Your task to perform on an android device: Add "jbl flip 4" to the cart on target.com Image 0: 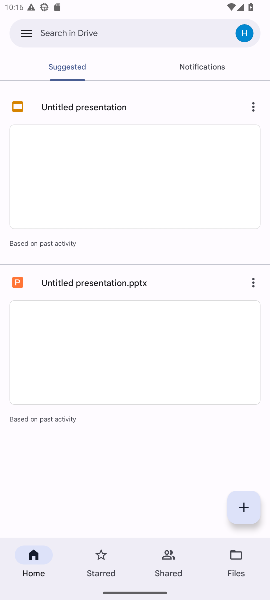
Step 0: press home button
Your task to perform on an android device: Add "jbl flip 4" to the cart on target.com Image 1: 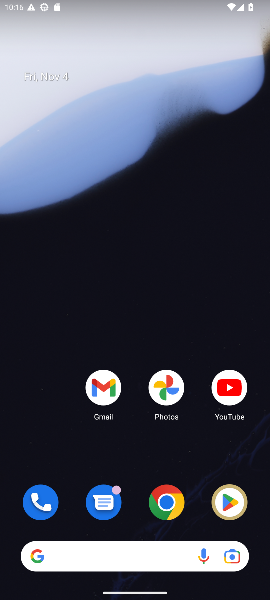
Step 1: drag from (131, 456) to (24, 43)
Your task to perform on an android device: Add "jbl flip 4" to the cart on target.com Image 2: 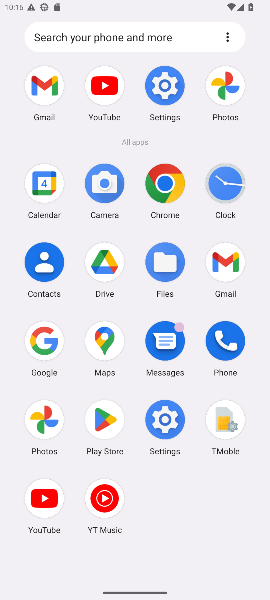
Step 2: click (168, 185)
Your task to perform on an android device: Add "jbl flip 4" to the cart on target.com Image 3: 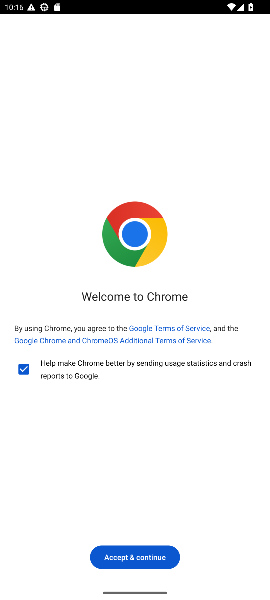
Step 3: click (126, 554)
Your task to perform on an android device: Add "jbl flip 4" to the cart on target.com Image 4: 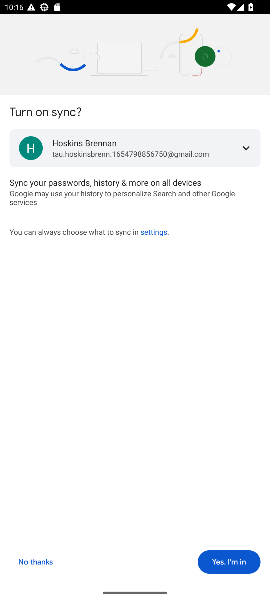
Step 4: click (235, 559)
Your task to perform on an android device: Add "jbl flip 4" to the cart on target.com Image 5: 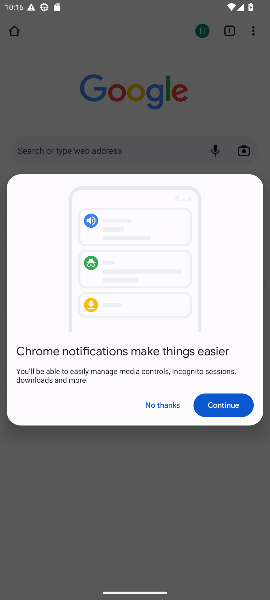
Step 5: click (158, 408)
Your task to perform on an android device: Add "jbl flip 4" to the cart on target.com Image 6: 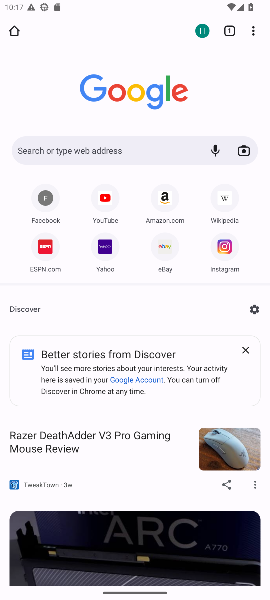
Step 6: click (108, 146)
Your task to perform on an android device: Add "jbl flip 4" to the cart on target.com Image 7: 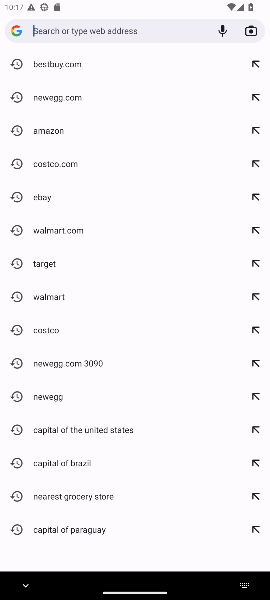
Step 7: type "target.com"
Your task to perform on an android device: Add "jbl flip 4" to the cart on target.com Image 8: 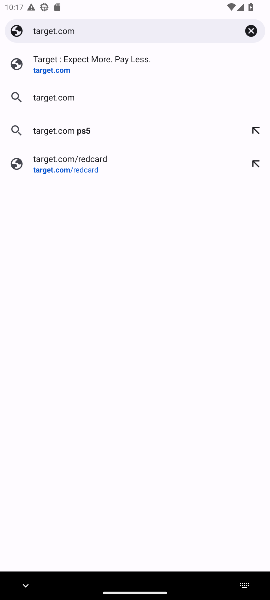
Step 8: press enter
Your task to perform on an android device: Add "jbl flip 4" to the cart on target.com Image 9: 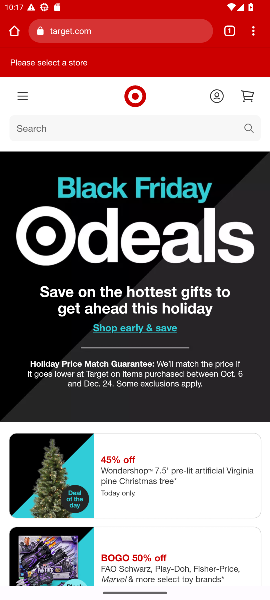
Step 9: click (160, 130)
Your task to perform on an android device: Add "jbl flip 4" to the cart on target.com Image 10: 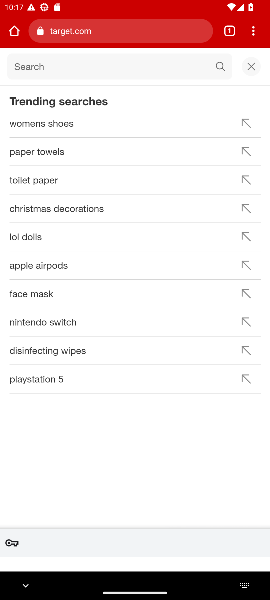
Step 10: type "jbl flip 4"
Your task to perform on an android device: Add "jbl flip 4" to the cart on target.com Image 11: 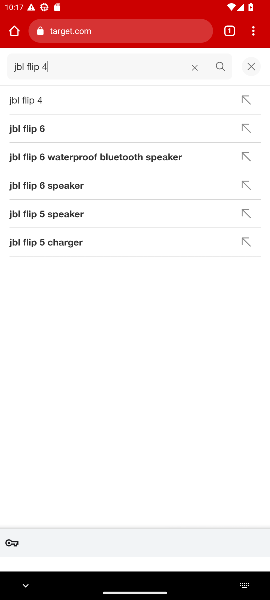
Step 11: press enter
Your task to perform on an android device: Add "jbl flip 4" to the cart on target.com Image 12: 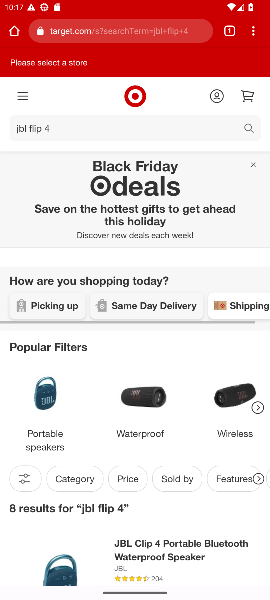
Step 12: drag from (180, 531) to (170, 241)
Your task to perform on an android device: Add "jbl flip 4" to the cart on target.com Image 13: 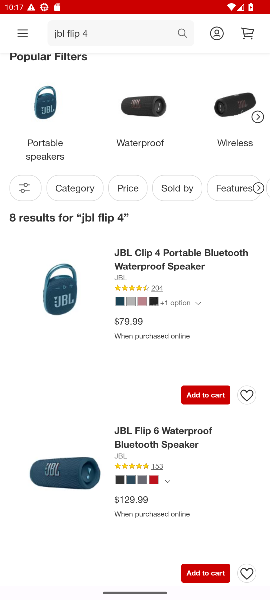
Step 13: click (212, 395)
Your task to perform on an android device: Add "jbl flip 4" to the cart on target.com Image 14: 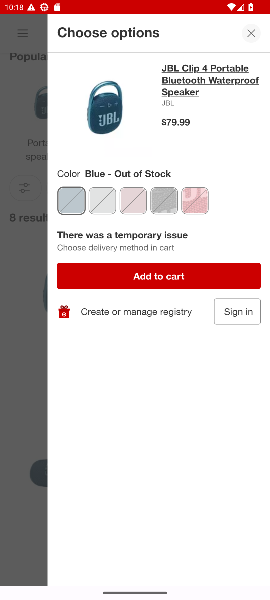
Step 14: click (183, 277)
Your task to perform on an android device: Add "jbl flip 4" to the cart on target.com Image 15: 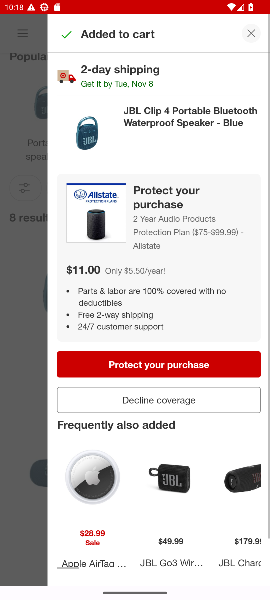
Step 15: task complete